Your task to perform on an android device: Open Google Maps Image 0: 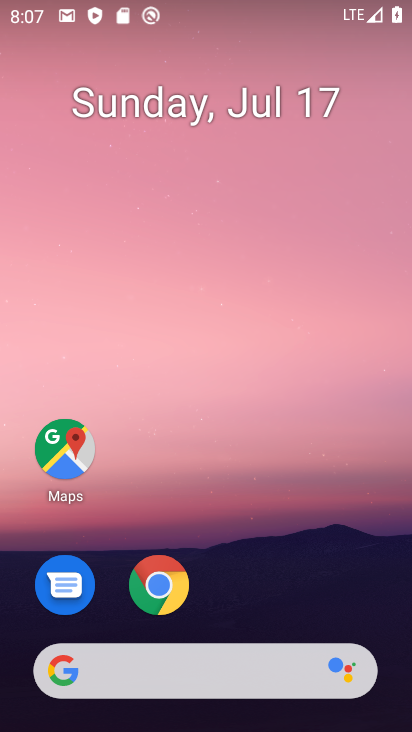
Step 0: click (71, 449)
Your task to perform on an android device: Open Google Maps Image 1: 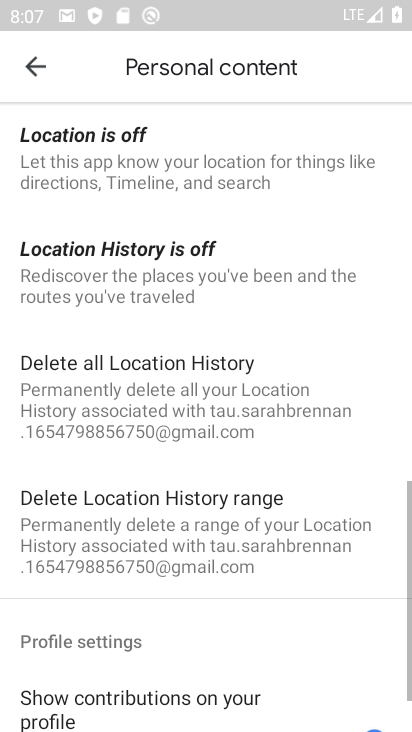
Step 1: click (38, 70)
Your task to perform on an android device: Open Google Maps Image 2: 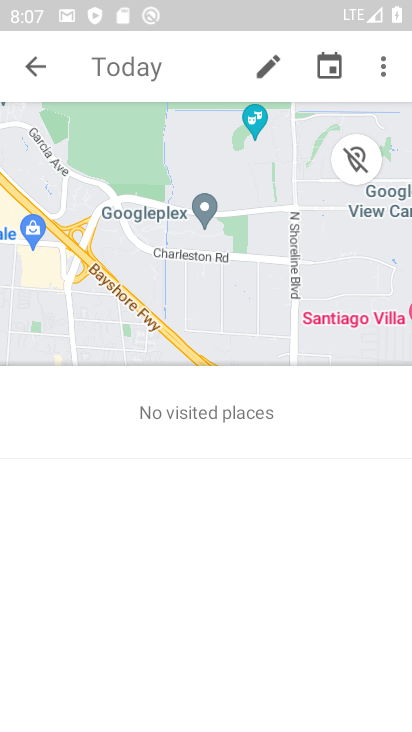
Step 2: click (38, 70)
Your task to perform on an android device: Open Google Maps Image 3: 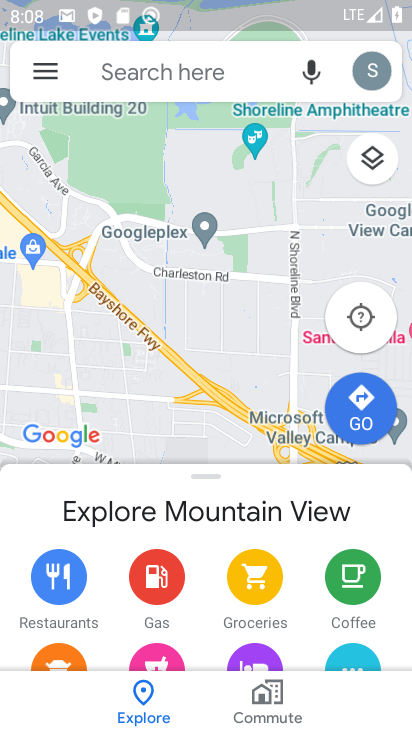
Step 3: task complete